Your task to perform on an android device: What's the weather? Image 0: 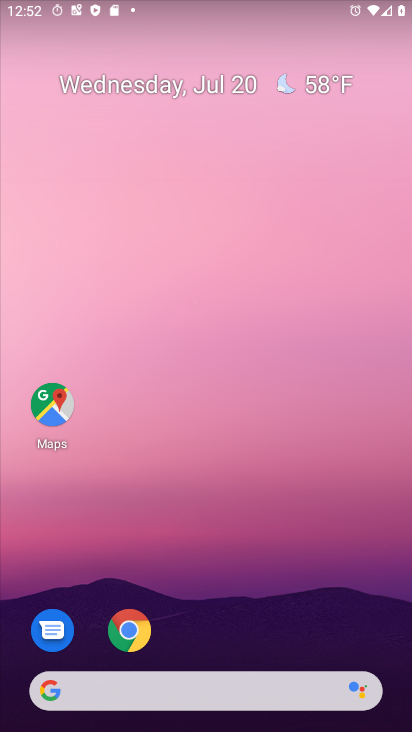
Step 0: click (134, 695)
Your task to perform on an android device: What's the weather? Image 1: 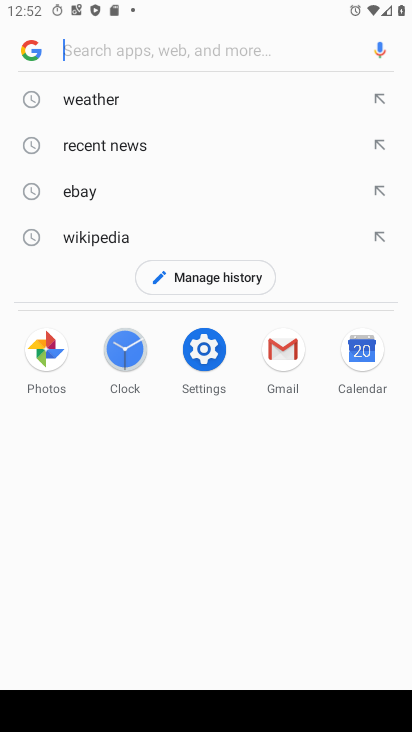
Step 1: click (93, 97)
Your task to perform on an android device: What's the weather? Image 2: 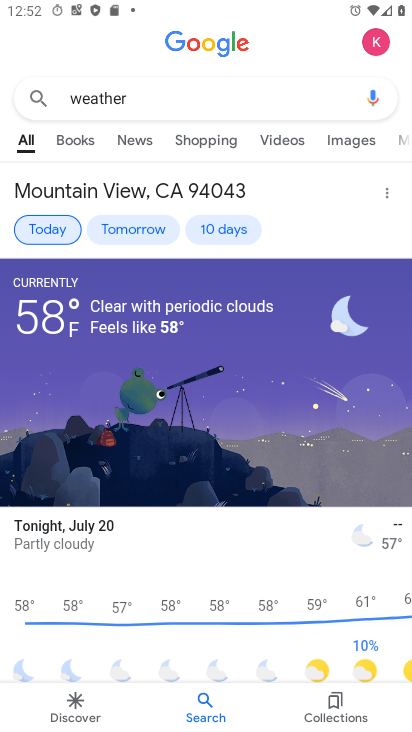
Step 2: task complete